Your task to perform on an android device: View the shopping cart on newegg.com. Image 0: 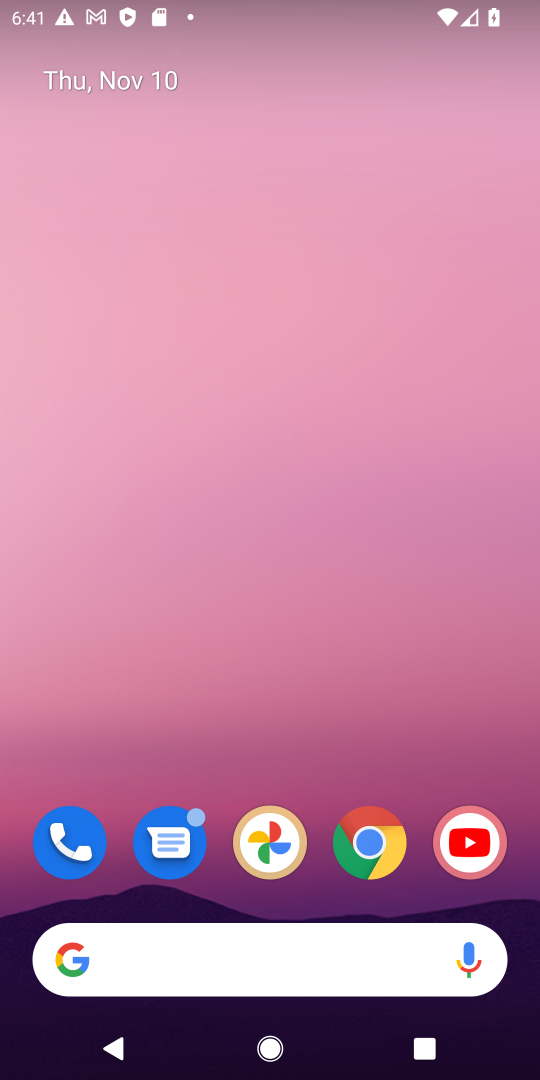
Step 0: click (367, 836)
Your task to perform on an android device: View the shopping cart on newegg.com. Image 1: 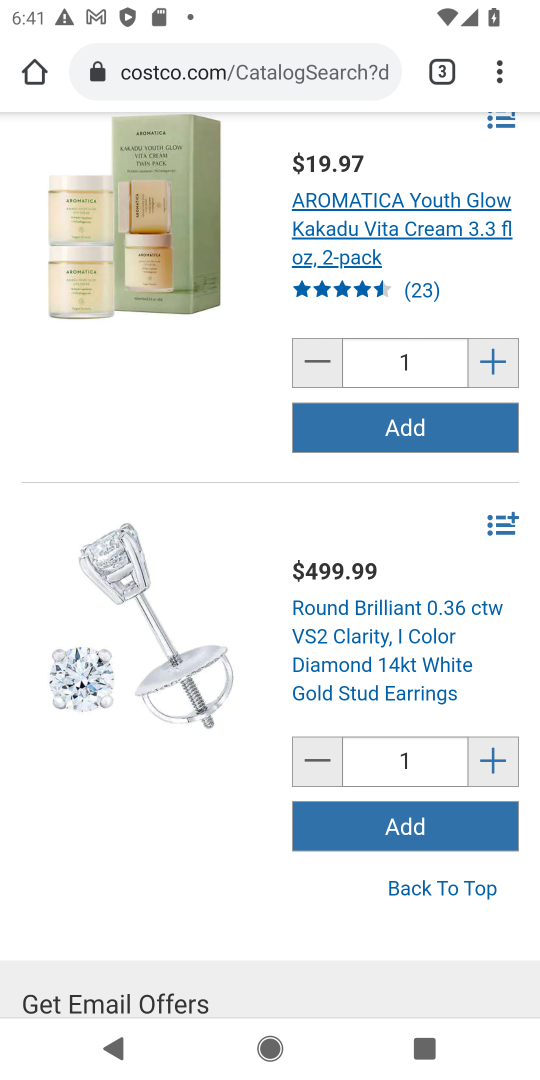
Step 1: click (448, 71)
Your task to perform on an android device: View the shopping cart on newegg.com. Image 2: 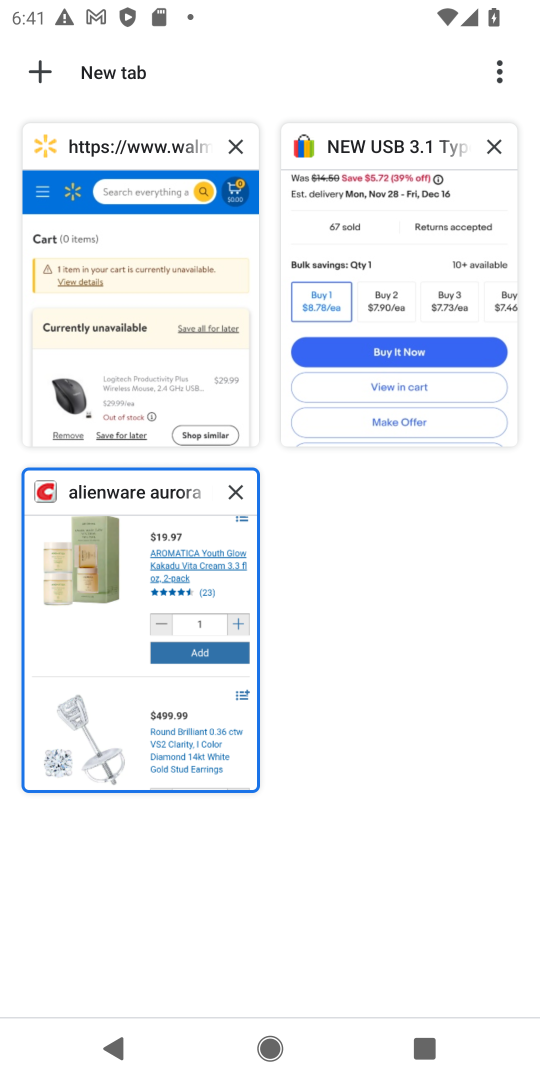
Step 2: click (34, 67)
Your task to perform on an android device: View the shopping cart on newegg.com. Image 3: 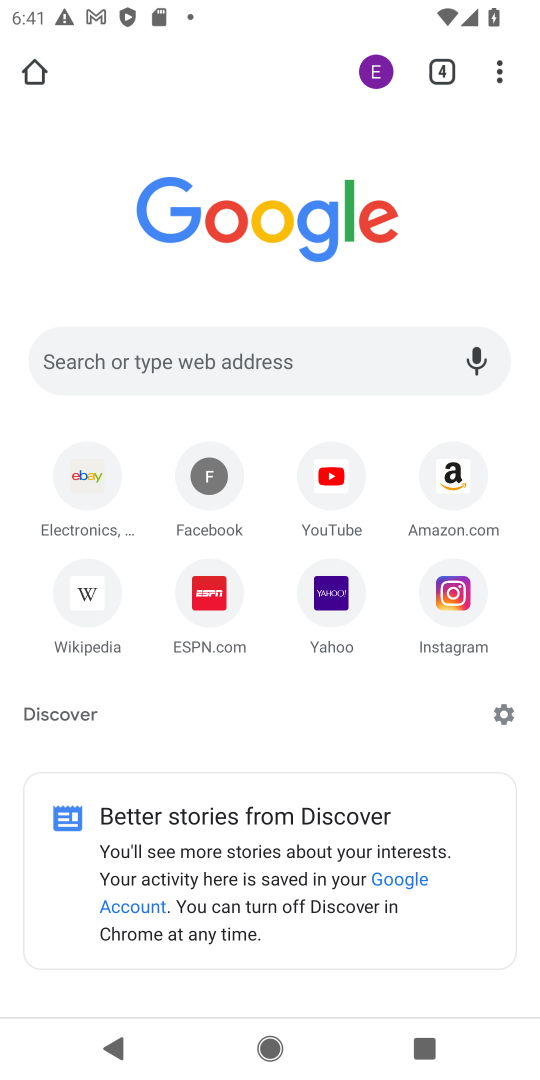
Step 3: click (249, 365)
Your task to perform on an android device: View the shopping cart on newegg.com. Image 4: 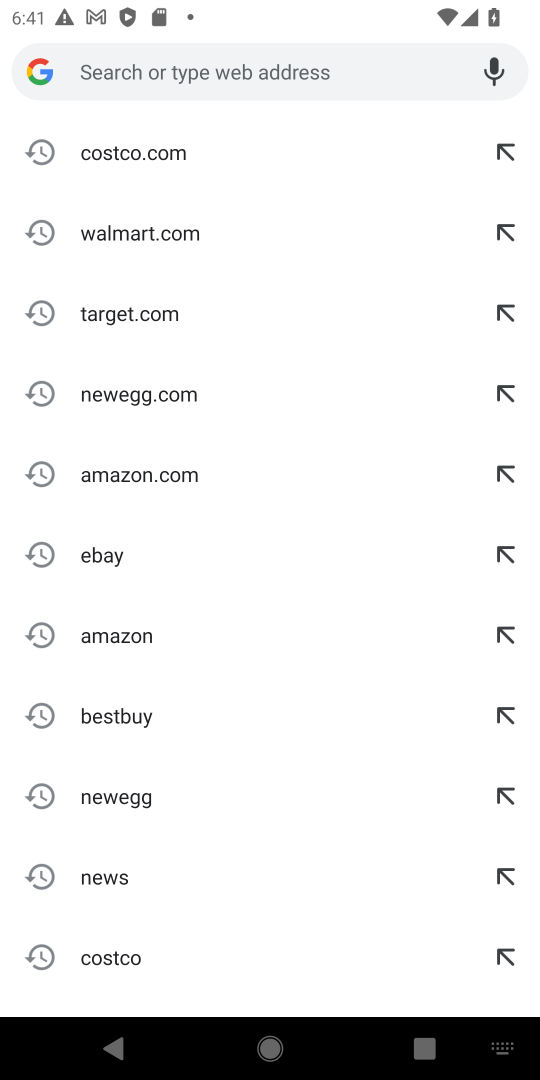
Step 4: click (122, 399)
Your task to perform on an android device: View the shopping cart on newegg.com. Image 5: 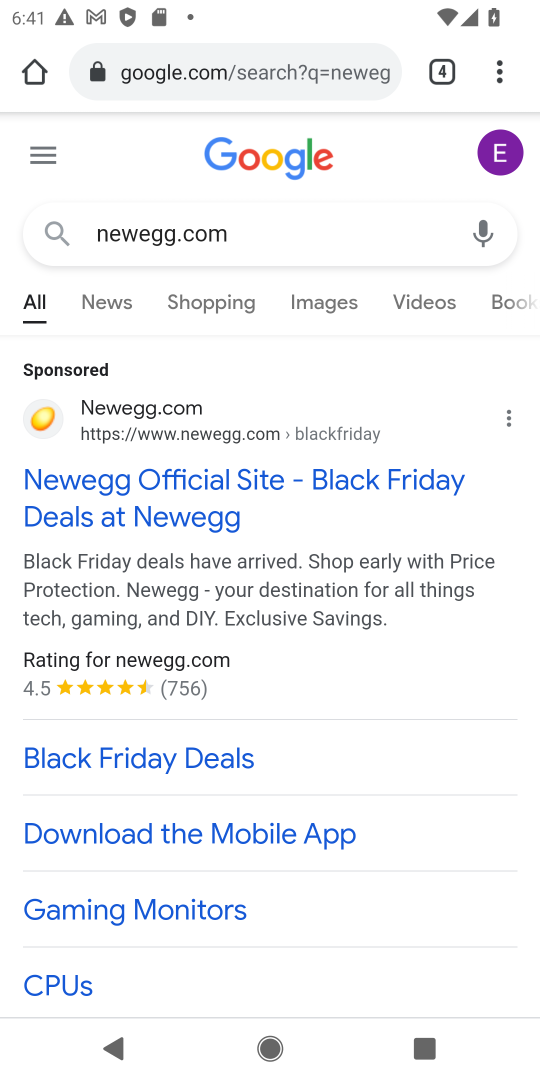
Step 5: click (138, 469)
Your task to perform on an android device: View the shopping cart on newegg.com. Image 6: 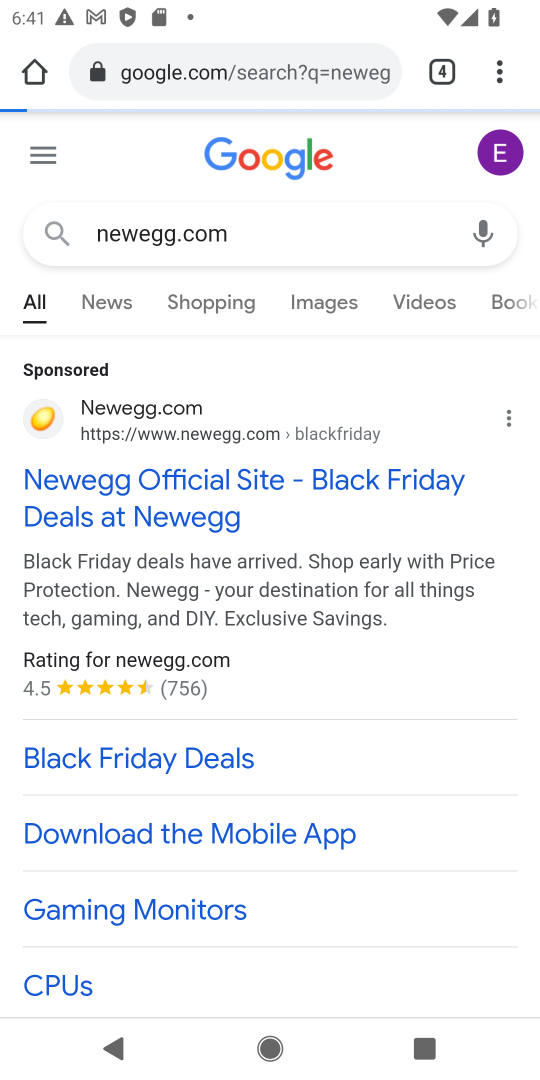
Step 6: click (122, 483)
Your task to perform on an android device: View the shopping cart on newegg.com. Image 7: 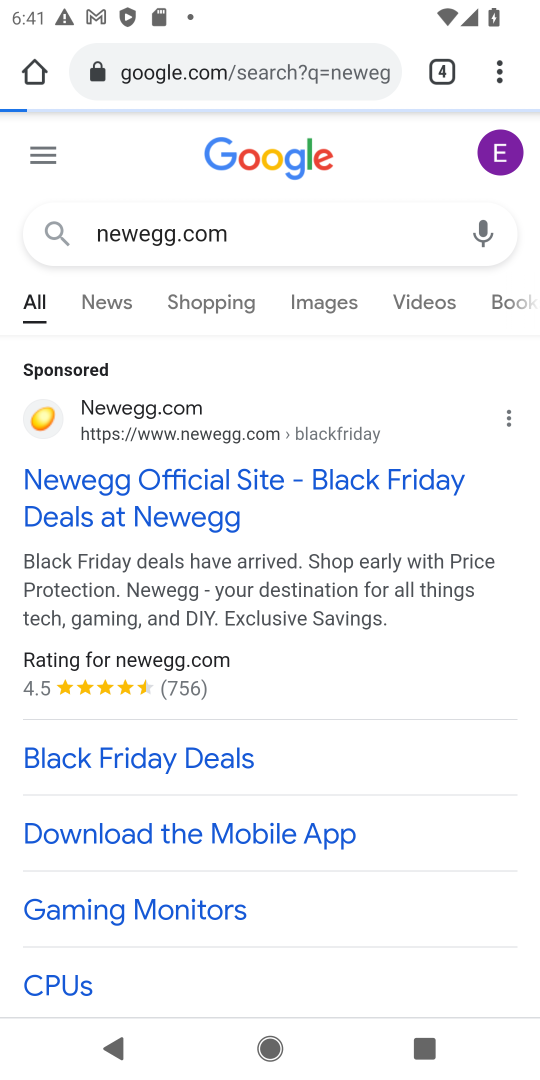
Step 7: click (93, 514)
Your task to perform on an android device: View the shopping cart on newegg.com. Image 8: 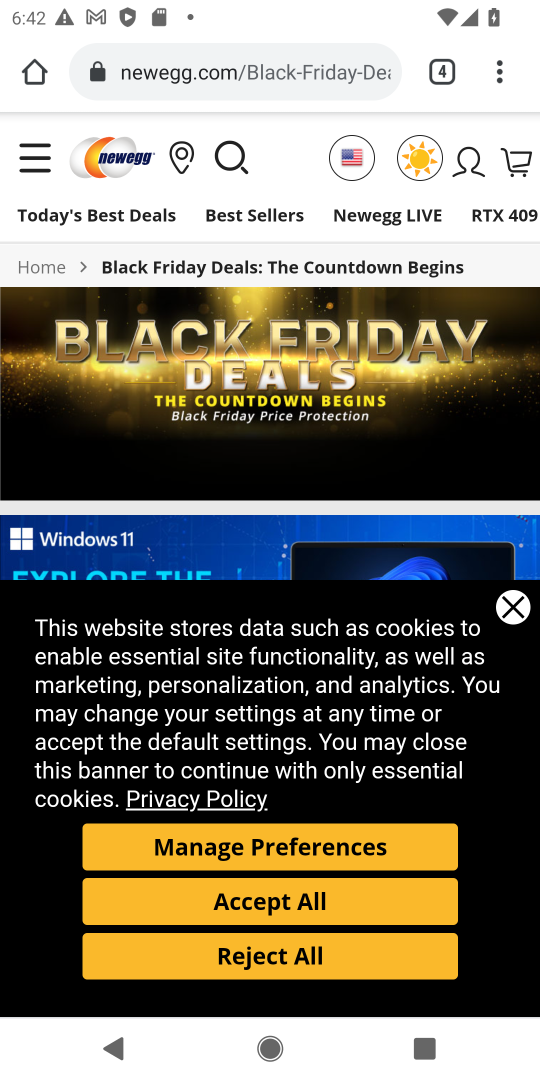
Step 8: click (292, 958)
Your task to perform on an android device: View the shopping cart on newegg.com. Image 9: 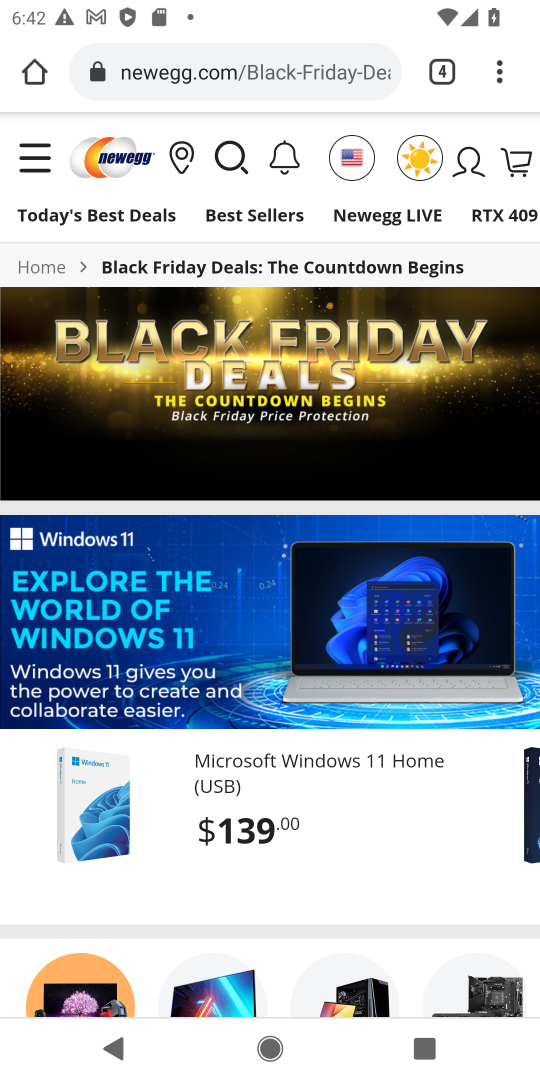
Step 9: click (514, 159)
Your task to perform on an android device: View the shopping cart on newegg.com. Image 10: 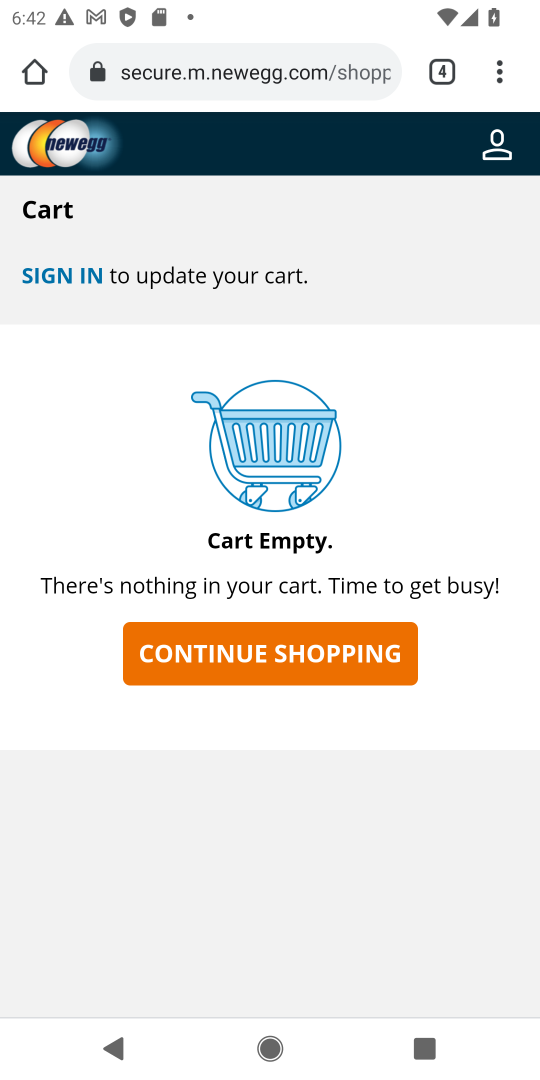
Step 10: task complete